Your task to perform on an android device: Check the weather Image 0: 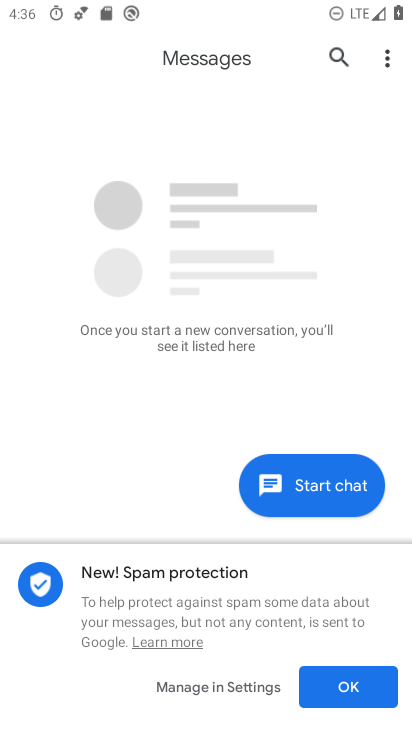
Step 0: press back button
Your task to perform on an android device: Check the weather Image 1: 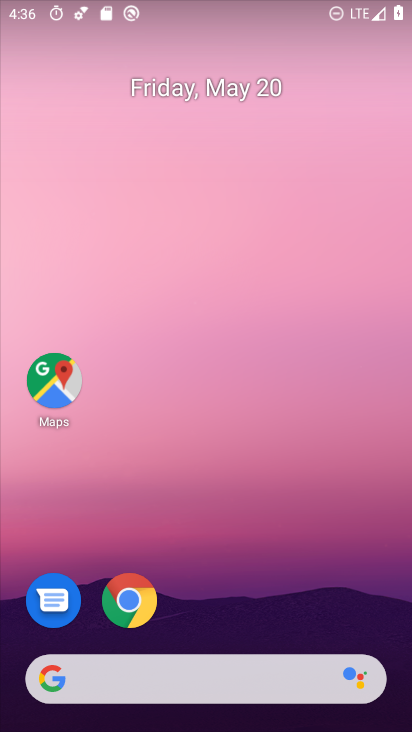
Step 1: click (200, 688)
Your task to perform on an android device: Check the weather Image 2: 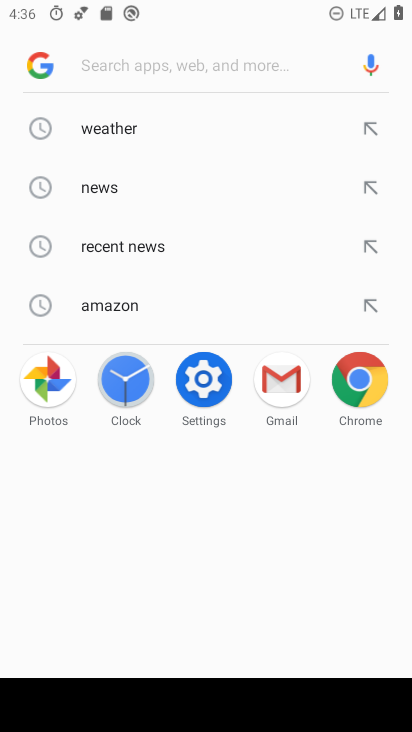
Step 2: click (101, 129)
Your task to perform on an android device: Check the weather Image 3: 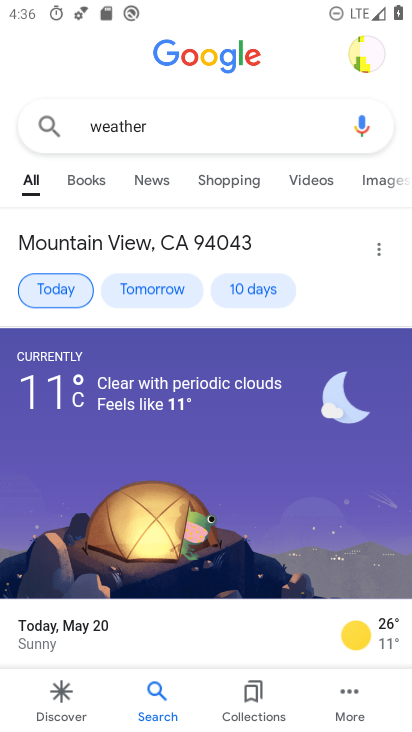
Step 3: task complete